Your task to perform on an android device: Open Chrome and go to settings Image 0: 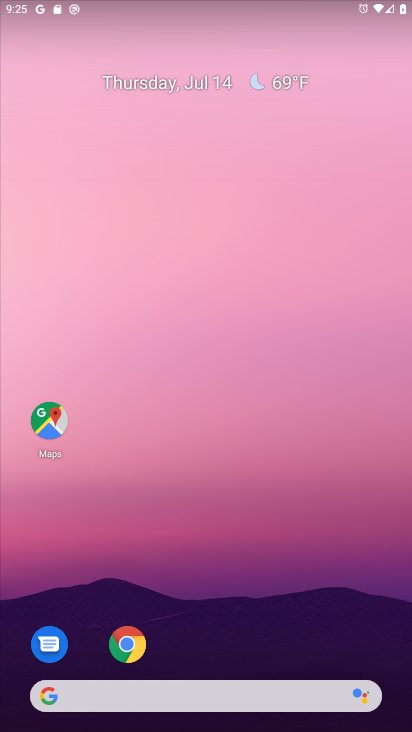
Step 0: click (127, 649)
Your task to perform on an android device: Open Chrome and go to settings Image 1: 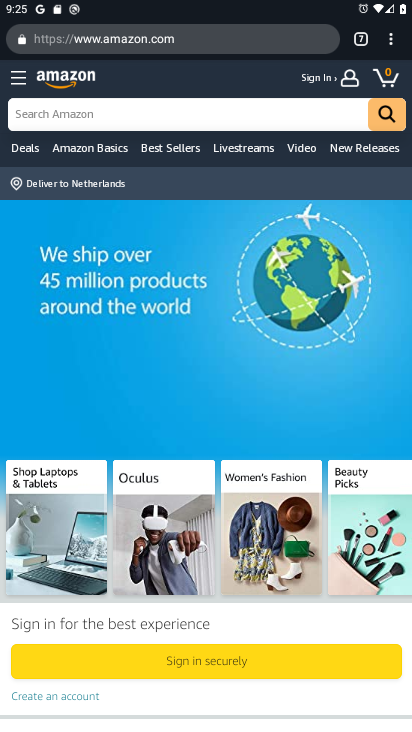
Step 1: click (402, 47)
Your task to perform on an android device: Open Chrome and go to settings Image 2: 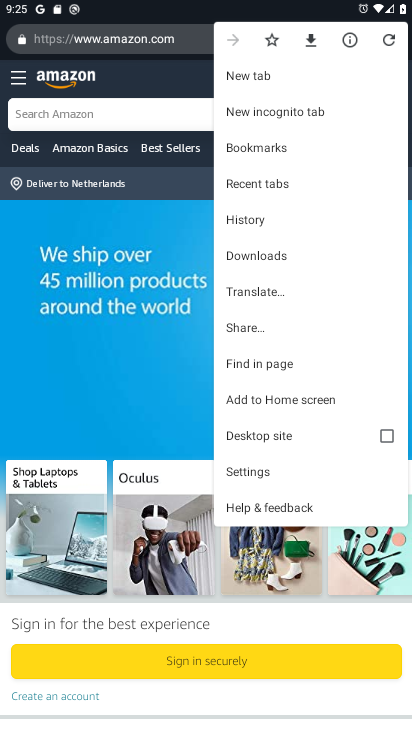
Step 2: click (256, 466)
Your task to perform on an android device: Open Chrome and go to settings Image 3: 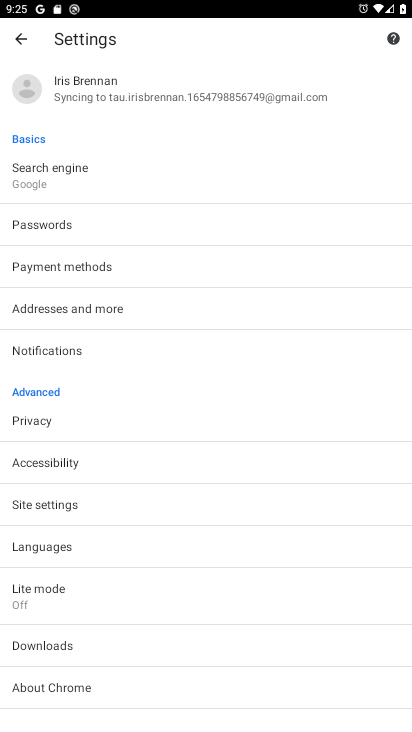
Step 3: task complete